Your task to perform on an android device: Open display settings Image 0: 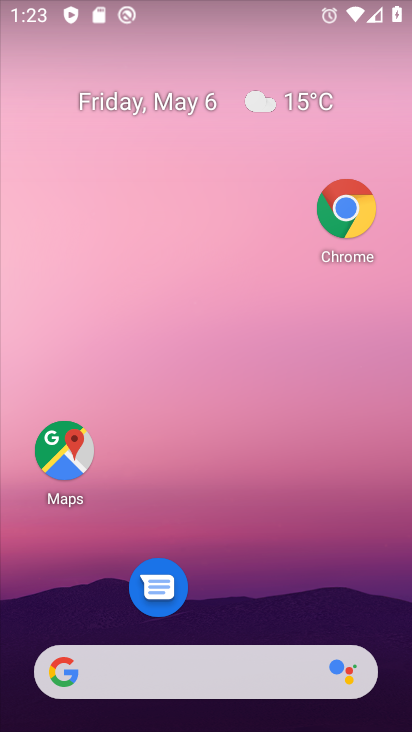
Step 0: drag from (241, 589) to (235, 185)
Your task to perform on an android device: Open display settings Image 1: 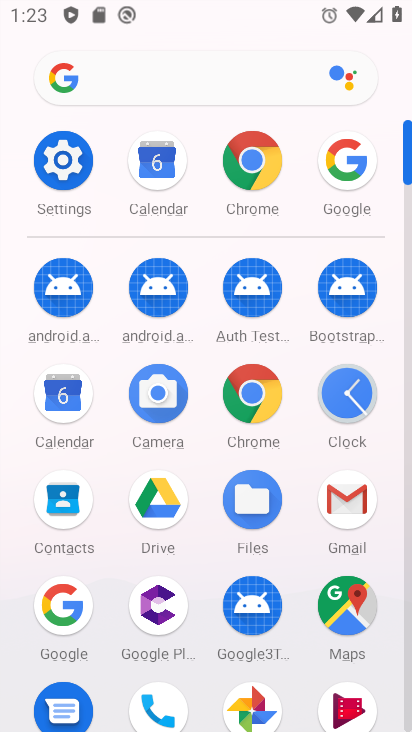
Step 1: click (61, 190)
Your task to perform on an android device: Open display settings Image 2: 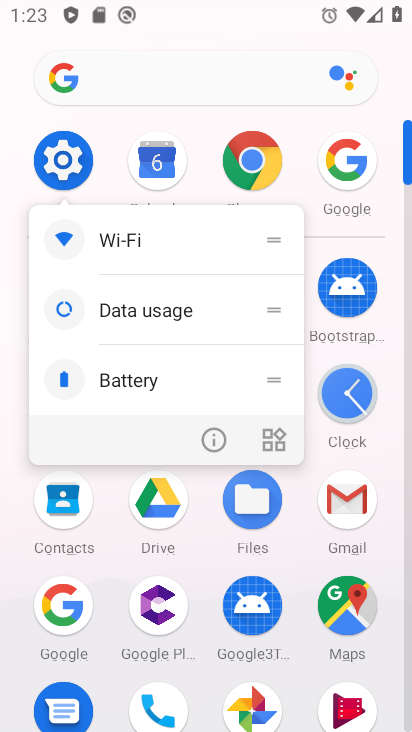
Step 2: click (53, 164)
Your task to perform on an android device: Open display settings Image 3: 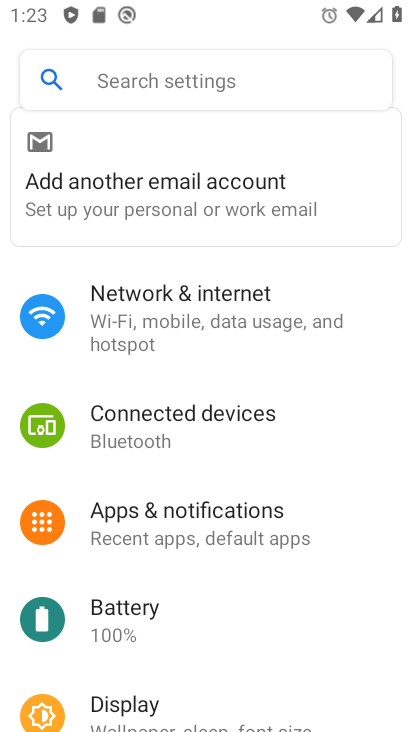
Step 3: click (154, 704)
Your task to perform on an android device: Open display settings Image 4: 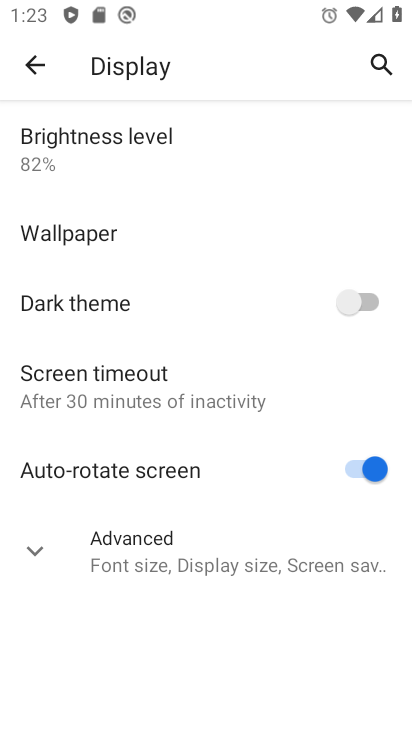
Step 4: task complete